Your task to perform on an android device: turn on the 24-hour format for clock Image 0: 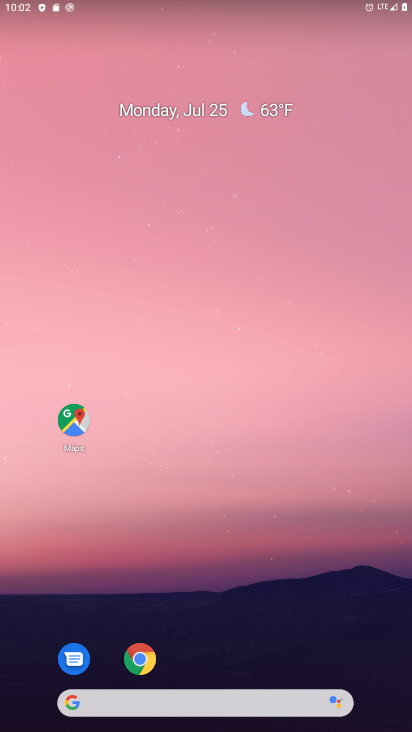
Step 0: drag from (204, 707) to (197, 138)
Your task to perform on an android device: turn on the 24-hour format for clock Image 1: 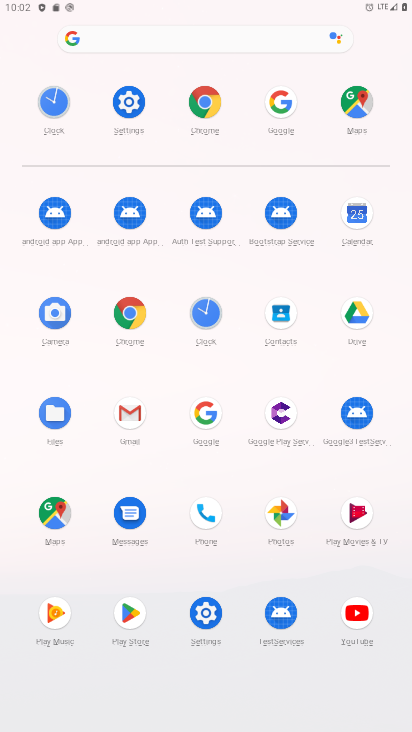
Step 1: click (203, 315)
Your task to perform on an android device: turn on the 24-hour format for clock Image 2: 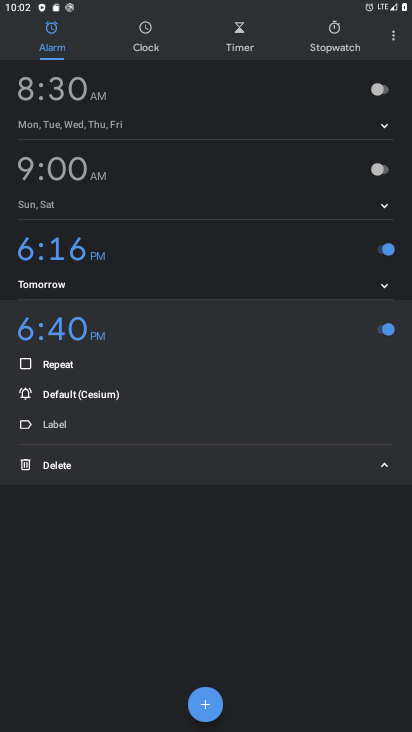
Step 2: click (394, 37)
Your task to perform on an android device: turn on the 24-hour format for clock Image 3: 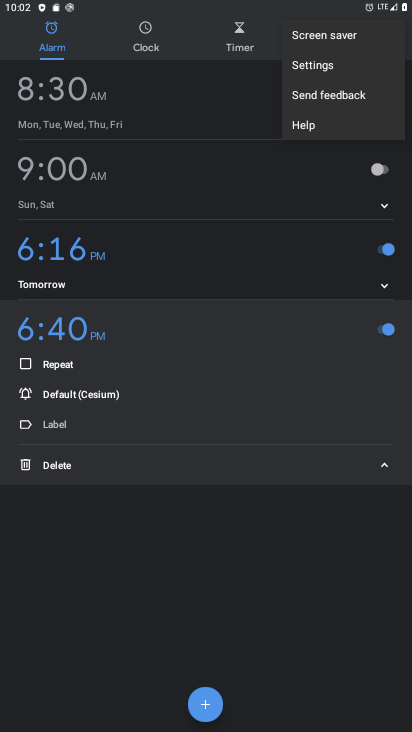
Step 3: click (315, 66)
Your task to perform on an android device: turn on the 24-hour format for clock Image 4: 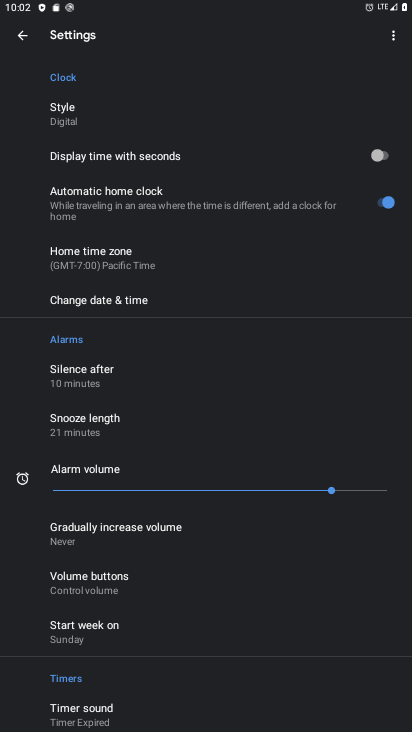
Step 4: click (128, 298)
Your task to perform on an android device: turn on the 24-hour format for clock Image 5: 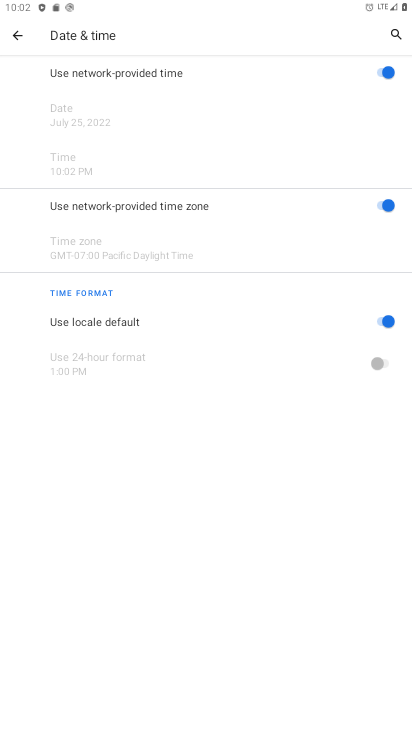
Step 5: click (387, 323)
Your task to perform on an android device: turn on the 24-hour format for clock Image 6: 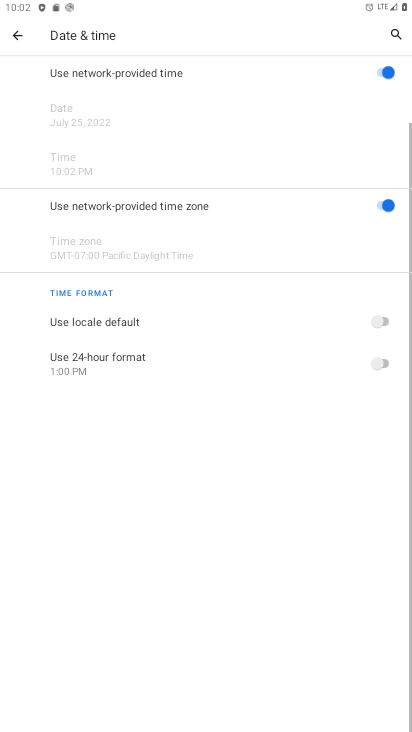
Step 6: click (386, 364)
Your task to perform on an android device: turn on the 24-hour format for clock Image 7: 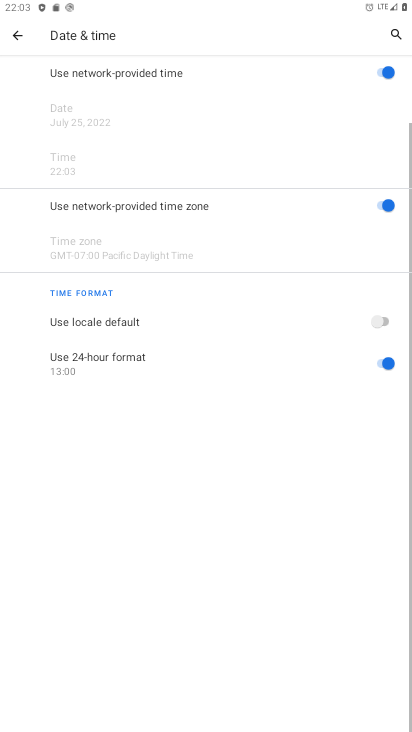
Step 7: task complete